Your task to perform on an android device: open a bookmark in the chrome app Image 0: 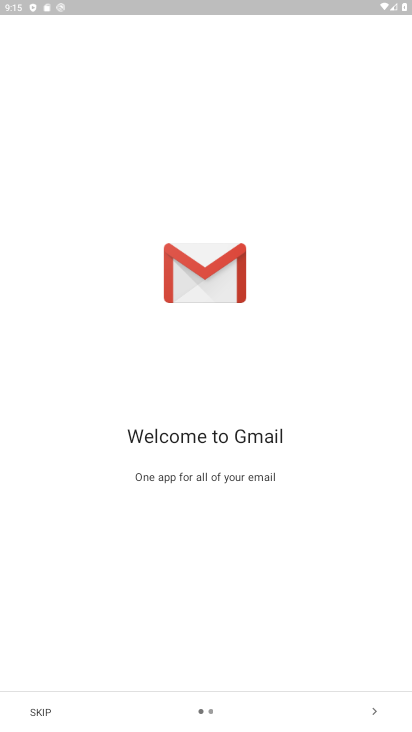
Step 0: press home button
Your task to perform on an android device: open a bookmark in the chrome app Image 1: 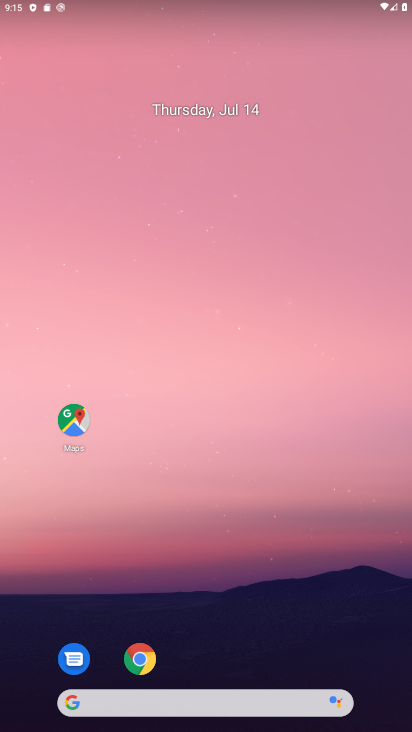
Step 1: drag from (302, 646) to (278, 204)
Your task to perform on an android device: open a bookmark in the chrome app Image 2: 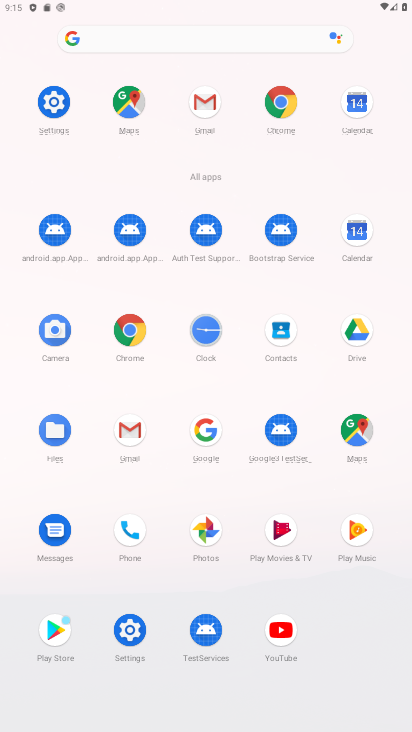
Step 2: click (287, 92)
Your task to perform on an android device: open a bookmark in the chrome app Image 3: 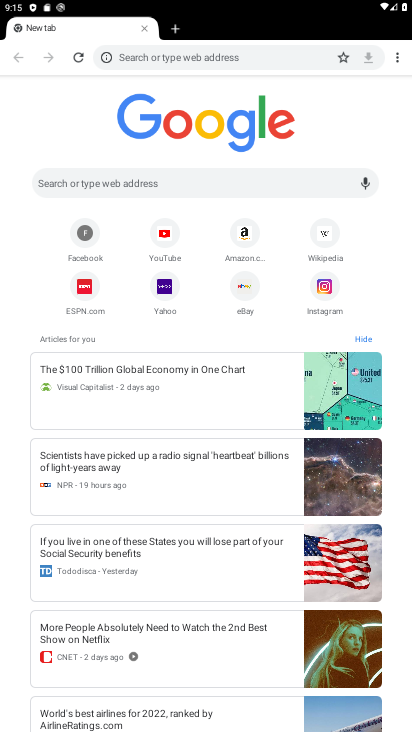
Step 3: click (399, 56)
Your task to perform on an android device: open a bookmark in the chrome app Image 4: 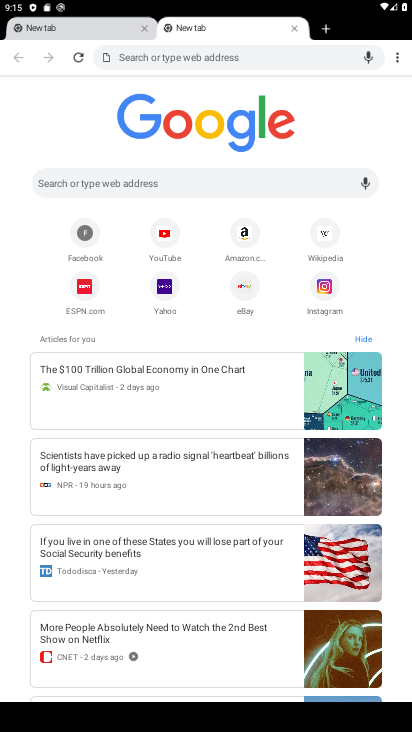
Step 4: click (402, 60)
Your task to perform on an android device: open a bookmark in the chrome app Image 5: 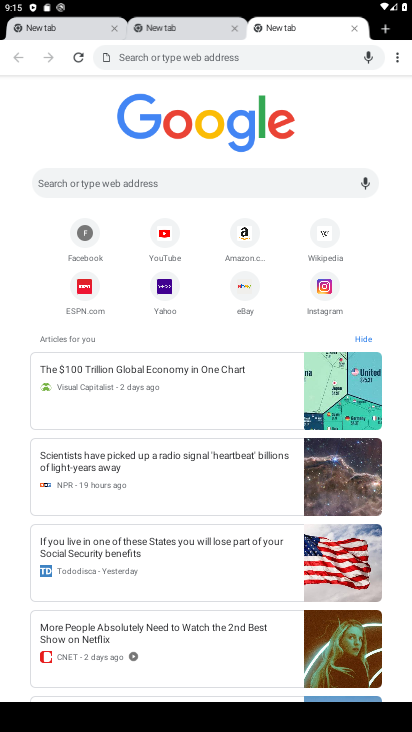
Step 5: click (402, 60)
Your task to perform on an android device: open a bookmark in the chrome app Image 6: 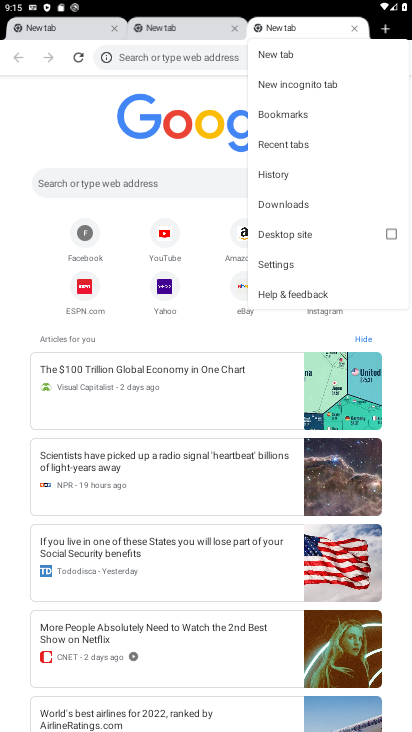
Step 6: click (289, 115)
Your task to perform on an android device: open a bookmark in the chrome app Image 7: 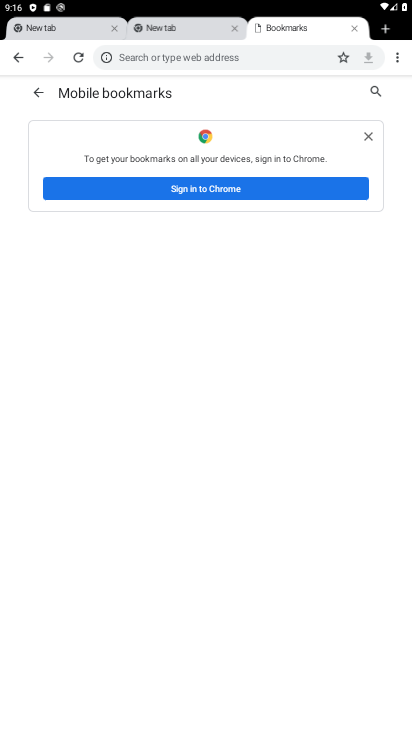
Step 7: task complete